Your task to perform on an android device: change the clock display to show seconds Image 0: 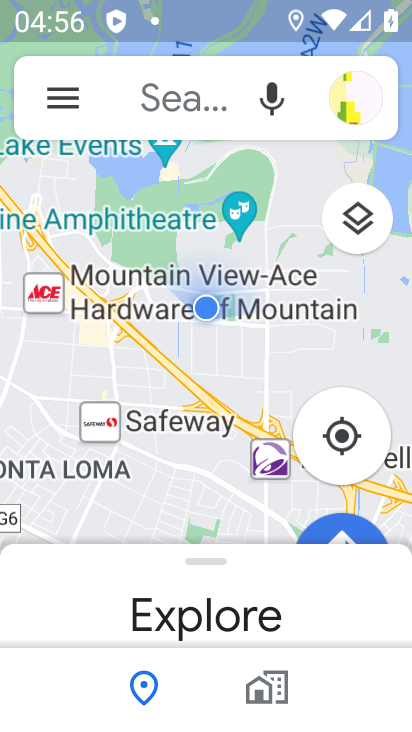
Step 0: press home button
Your task to perform on an android device: change the clock display to show seconds Image 1: 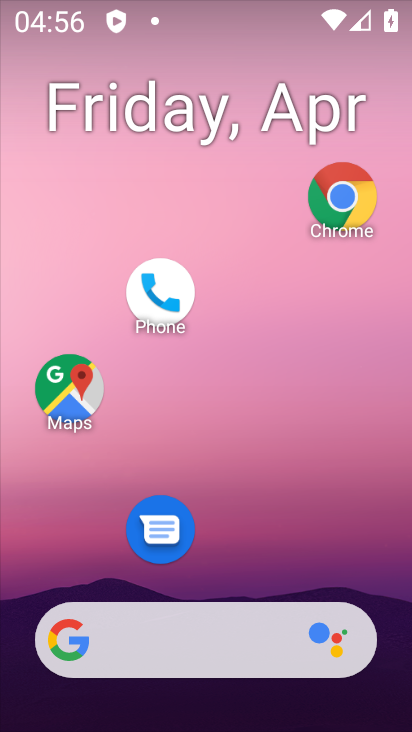
Step 1: drag from (256, 579) to (237, 117)
Your task to perform on an android device: change the clock display to show seconds Image 2: 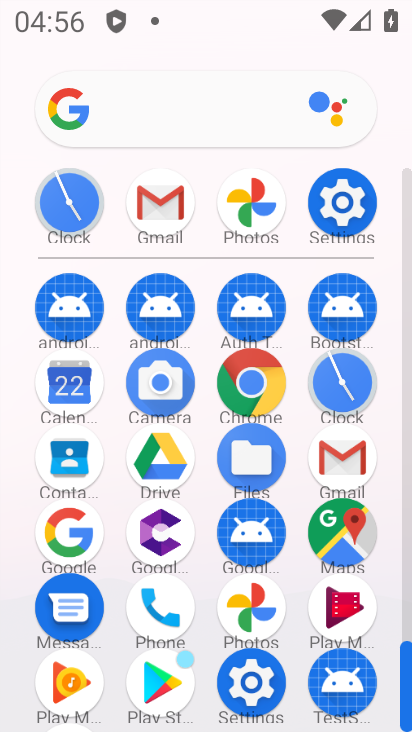
Step 2: click (340, 374)
Your task to perform on an android device: change the clock display to show seconds Image 3: 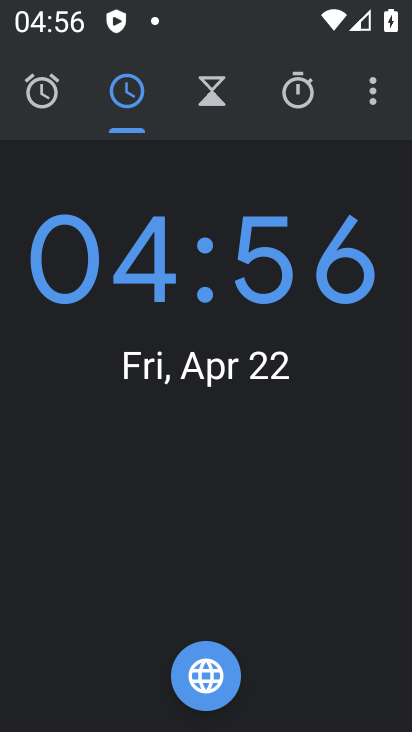
Step 3: click (379, 102)
Your task to perform on an android device: change the clock display to show seconds Image 4: 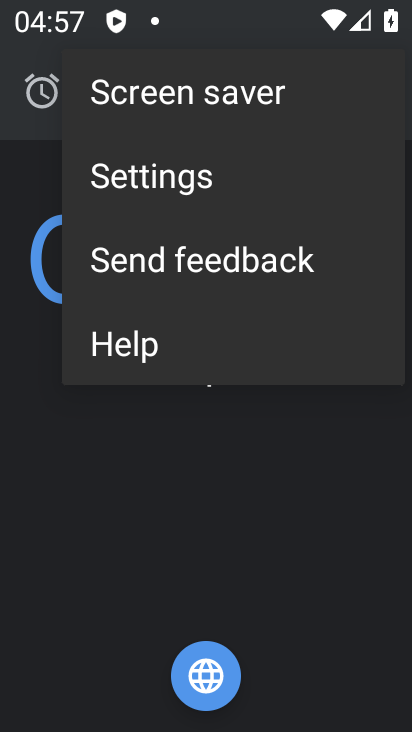
Step 4: click (227, 173)
Your task to perform on an android device: change the clock display to show seconds Image 5: 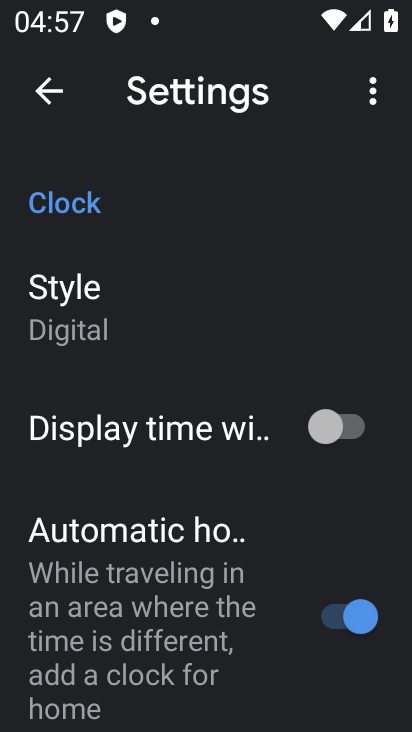
Step 5: click (337, 427)
Your task to perform on an android device: change the clock display to show seconds Image 6: 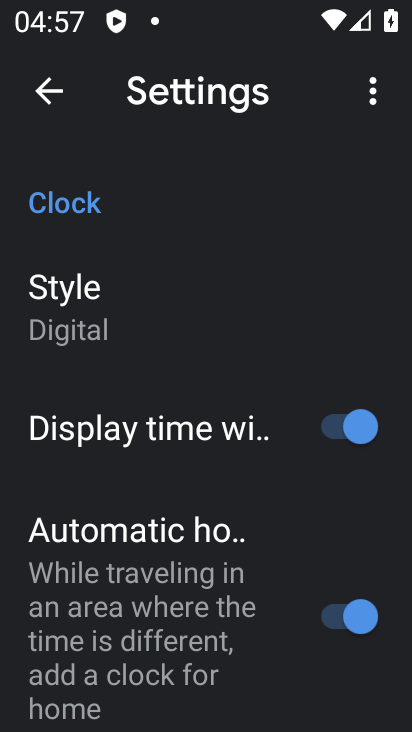
Step 6: task complete